Your task to perform on an android device: change your default location settings in chrome Image 0: 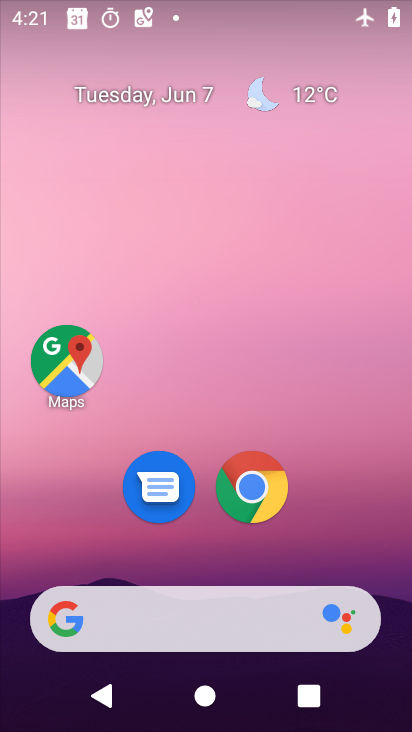
Step 0: click (248, 479)
Your task to perform on an android device: change your default location settings in chrome Image 1: 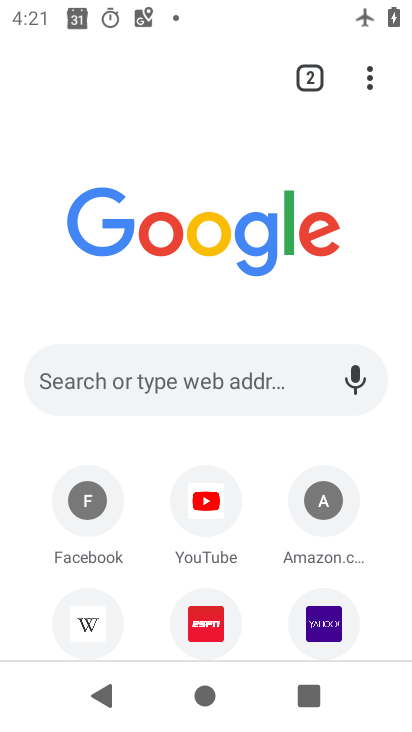
Step 1: click (361, 76)
Your task to perform on an android device: change your default location settings in chrome Image 2: 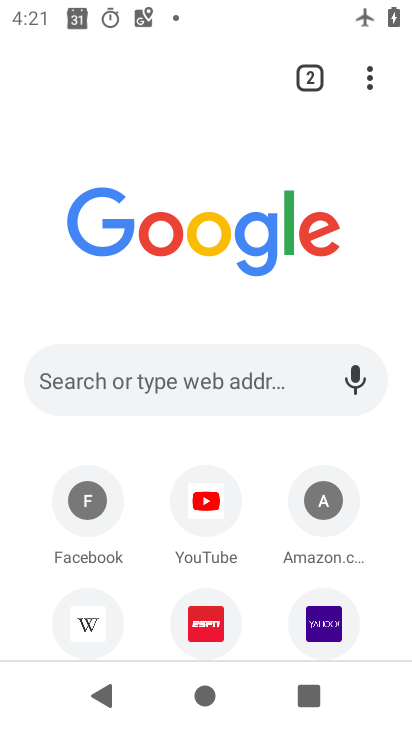
Step 2: drag from (373, 69) to (55, 555)
Your task to perform on an android device: change your default location settings in chrome Image 3: 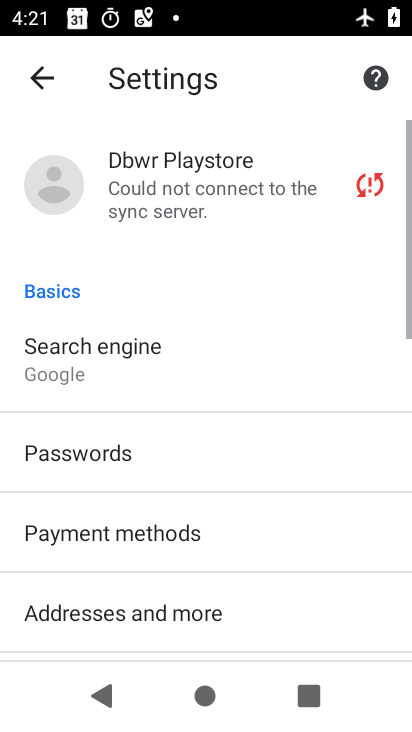
Step 3: drag from (112, 586) to (197, 271)
Your task to perform on an android device: change your default location settings in chrome Image 4: 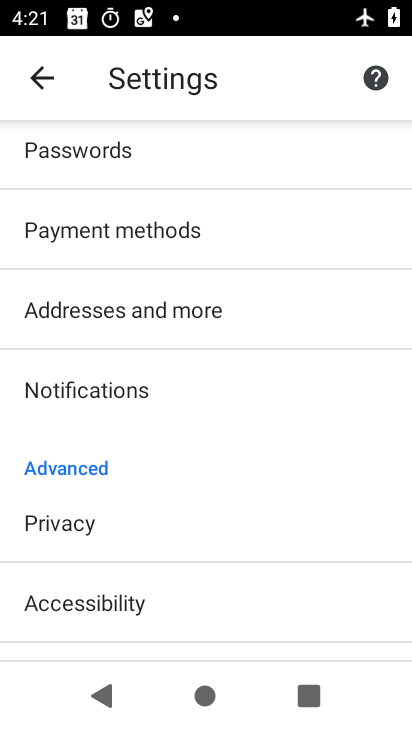
Step 4: drag from (160, 599) to (238, 153)
Your task to perform on an android device: change your default location settings in chrome Image 5: 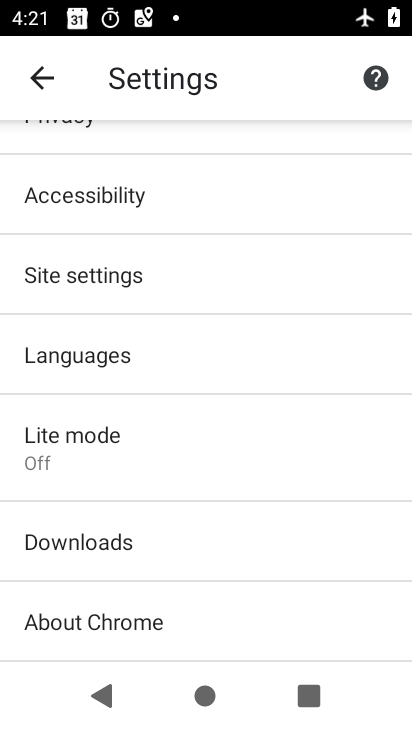
Step 5: click (135, 271)
Your task to perform on an android device: change your default location settings in chrome Image 6: 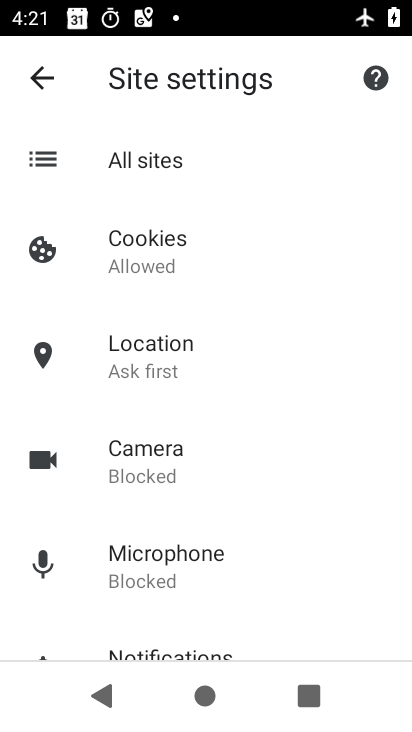
Step 6: click (130, 336)
Your task to perform on an android device: change your default location settings in chrome Image 7: 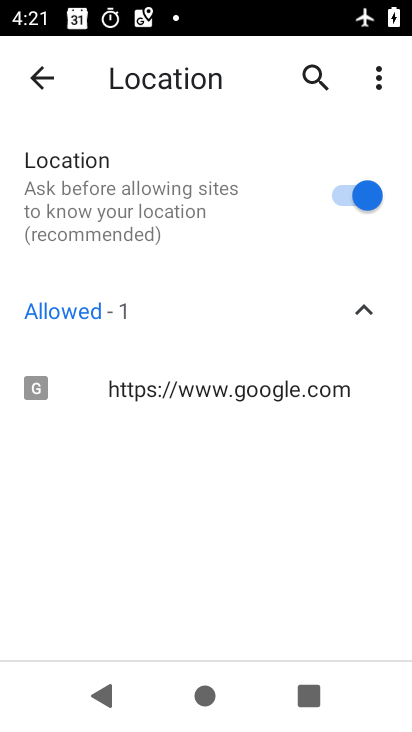
Step 7: task complete